Your task to perform on an android device: open the mobile data screen to see how much data has been used Image 0: 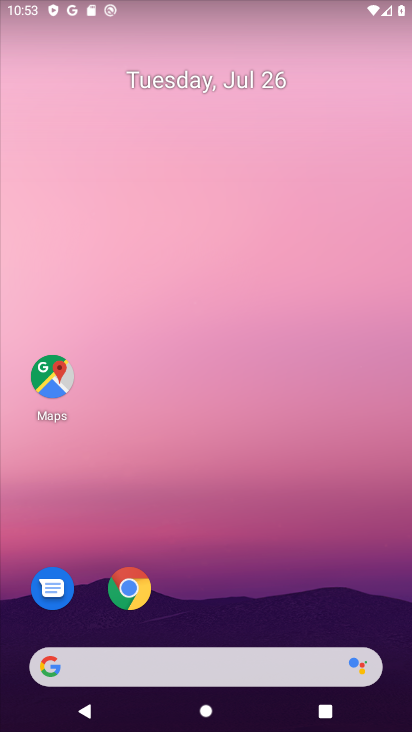
Step 0: press home button
Your task to perform on an android device: open the mobile data screen to see how much data has been used Image 1: 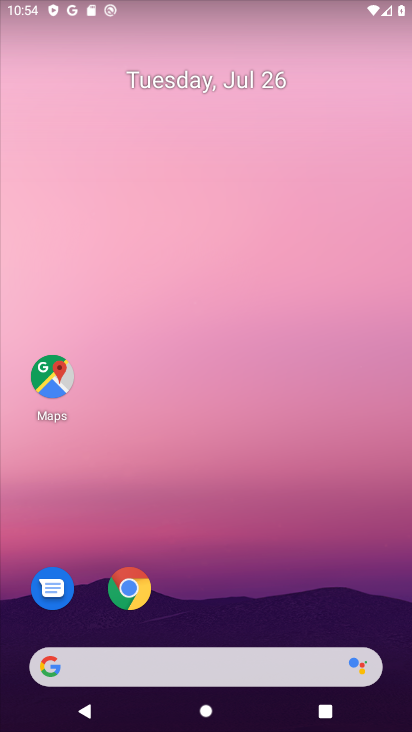
Step 1: drag from (200, 621) to (210, 92)
Your task to perform on an android device: open the mobile data screen to see how much data has been used Image 2: 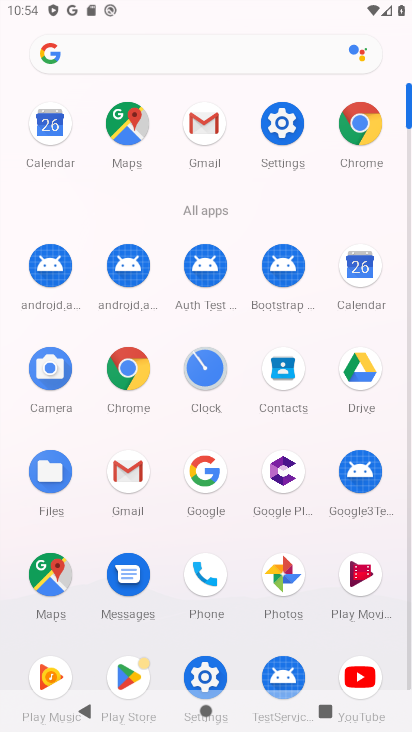
Step 2: click (276, 117)
Your task to perform on an android device: open the mobile data screen to see how much data has been used Image 3: 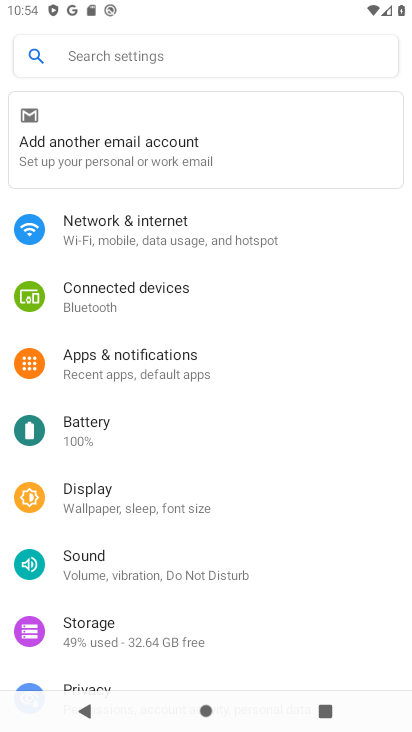
Step 3: click (136, 221)
Your task to perform on an android device: open the mobile data screen to see how much data has been used Image 4: 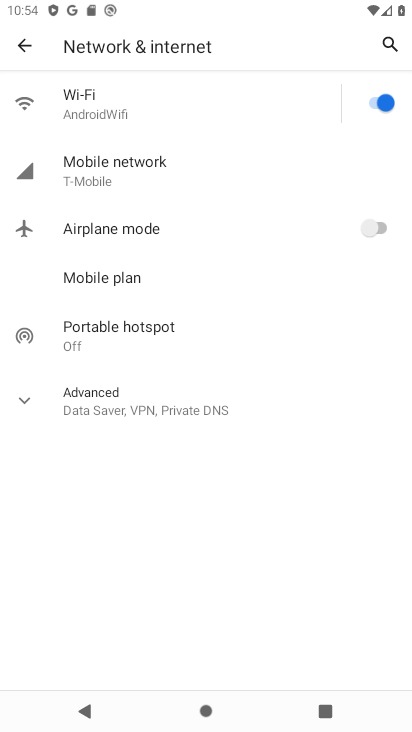
Step 4: click (118, 178)
Your task to perform on an android device: open the mobile data screen to see how much data has been used Image 5: 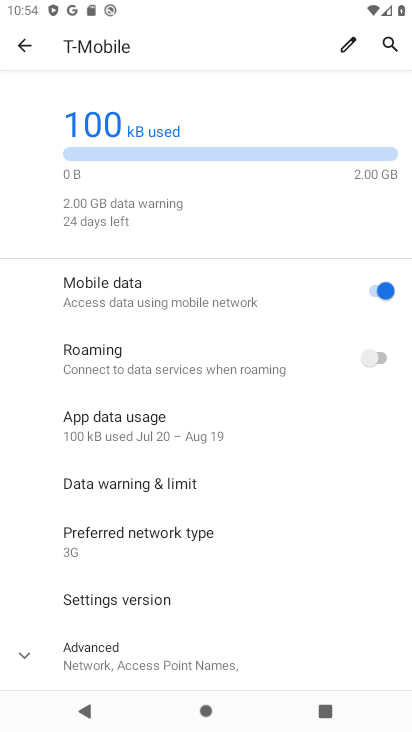
Step 5: click (176, 424)
Your task to perform on an android device: open the mobile data screen to see how much data has been used Image 6: 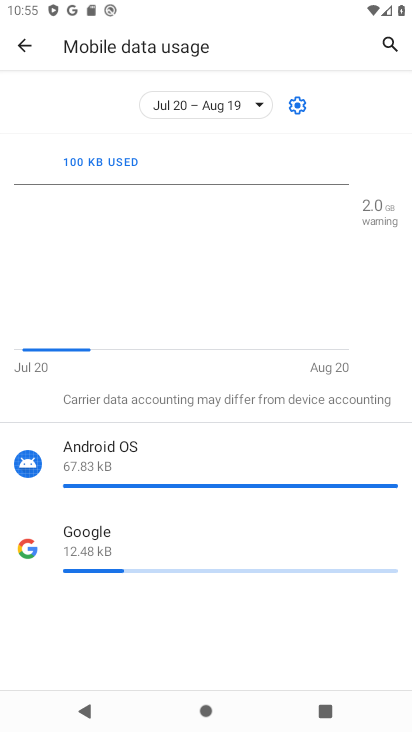
Step 6: task complete